Your task to perform on an android device: Go to Amazon Image 0: 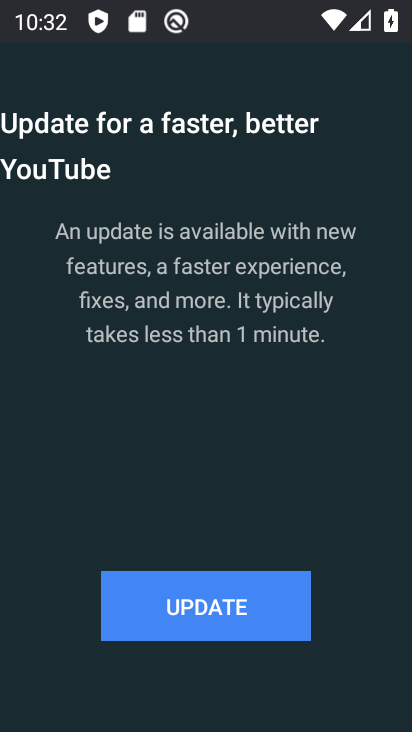
Step 0: press home button
Your task to perform on an android device: Go to Amazon Image 1: 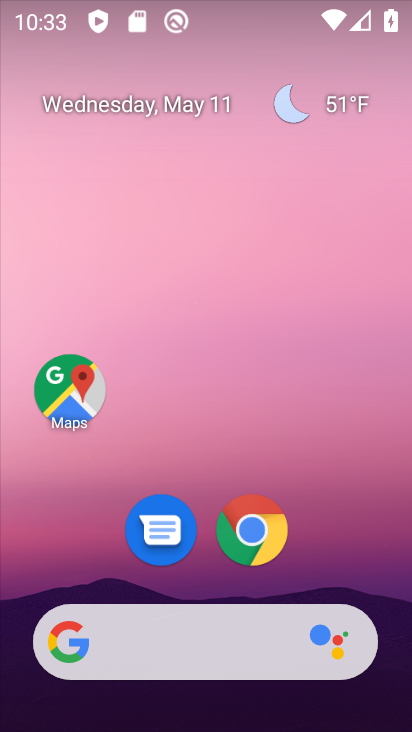
Step 1: click (271, 550)
Your task to perform on an android device: Go to Amazon Image 2: 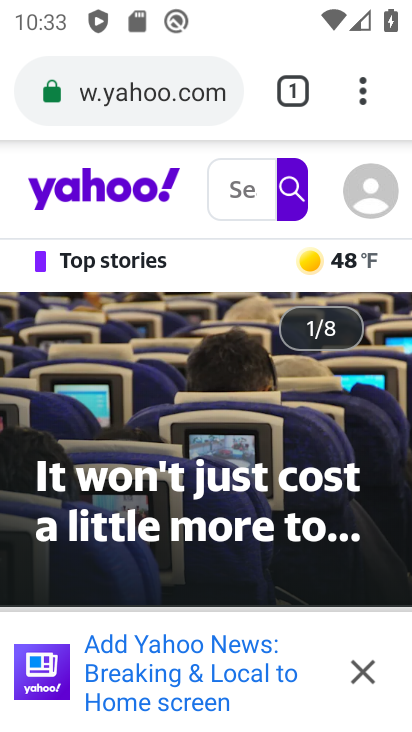
Step 2: click (287, 99)
Your task to perform on an android device: Go to Amazon Image 3: 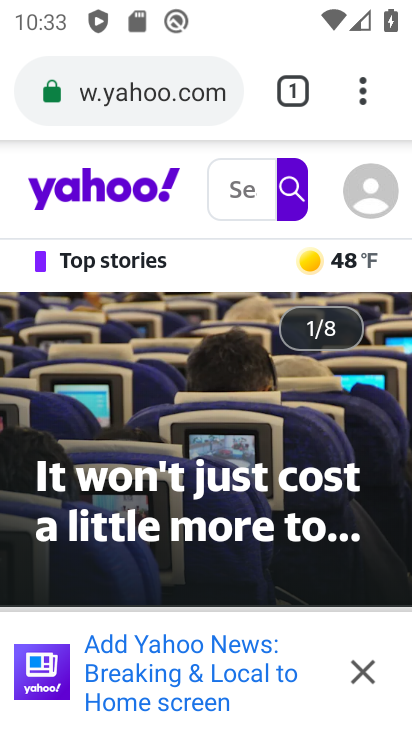
Step 3: click (301, 94)
Your task to perform on an android device: Go to Amazon Image 4: 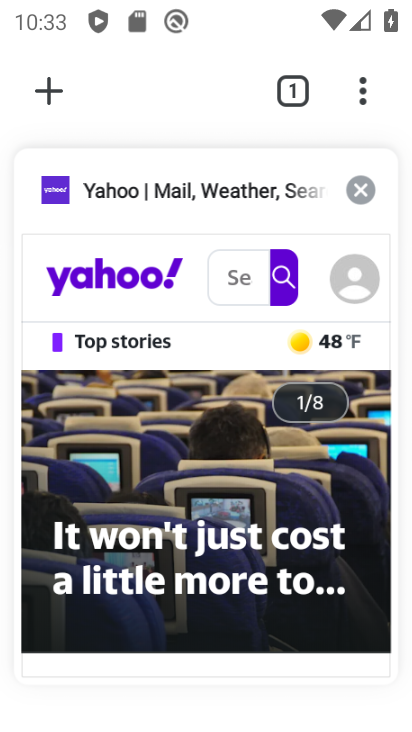
Step 4: click (43, 101)
Your task to perform on an android device: Go to Amazon Image 5: 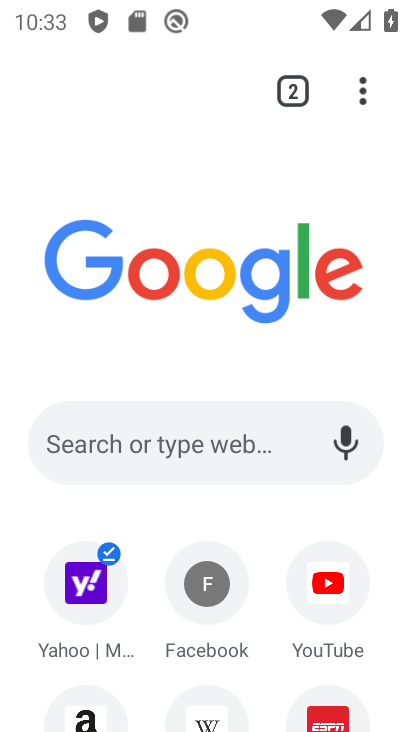
Step 5: drag from (218, 538) to (172, 363)
Your task to perform on an android device: Go to Amazon Image 6: 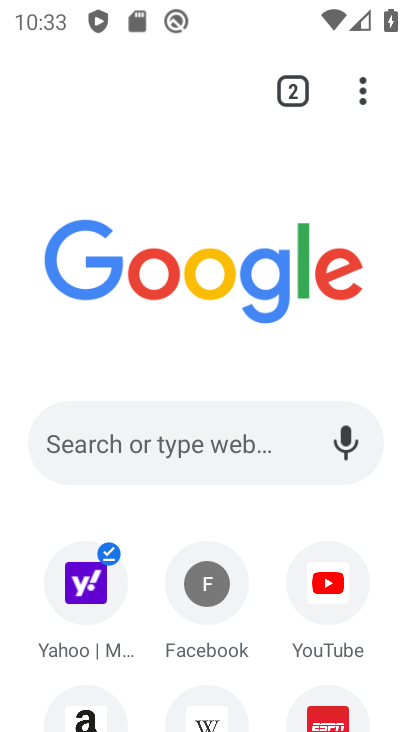
Step 6: click (98, 720)
Your task to perform on an android device: Go to Amazon Image 7: 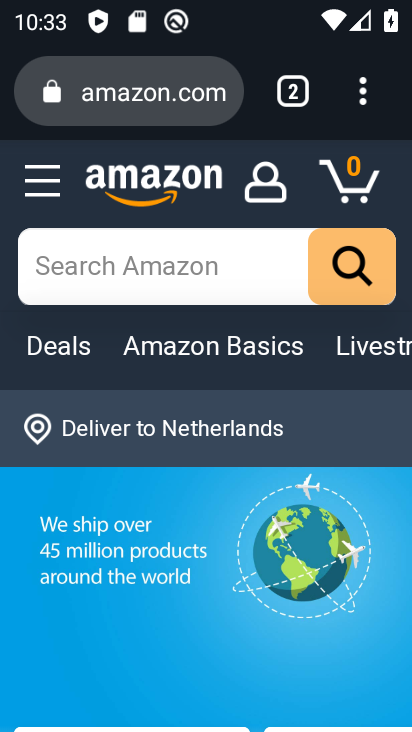
Step 7: task complete